Your task to perform on an android device: Open Chrome and go to settings Image 0: 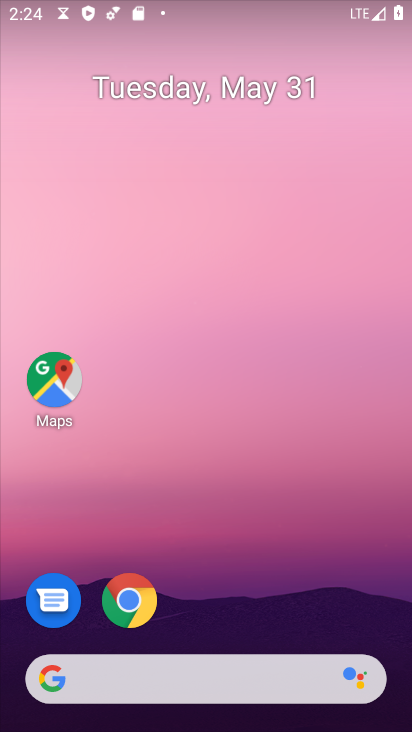
Step 0: drag from (225, 633) to (231, 74)
Your task to perform on an android device: Open Chrome and go to settings Image 1: 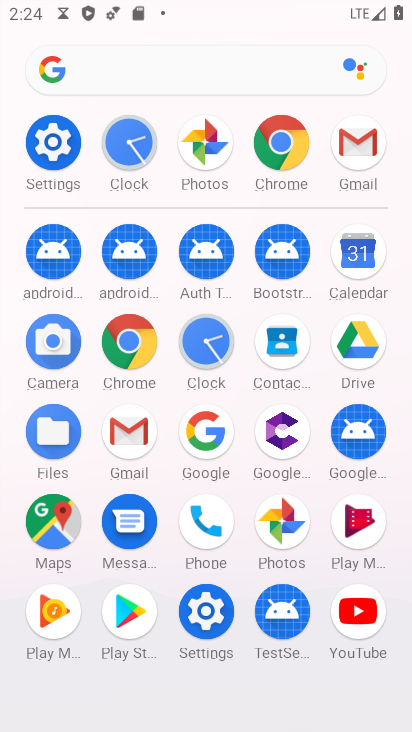
Step 1: click (206, 603)
Your task to perform on an android device: Open Chrome and go to settings Image 2: 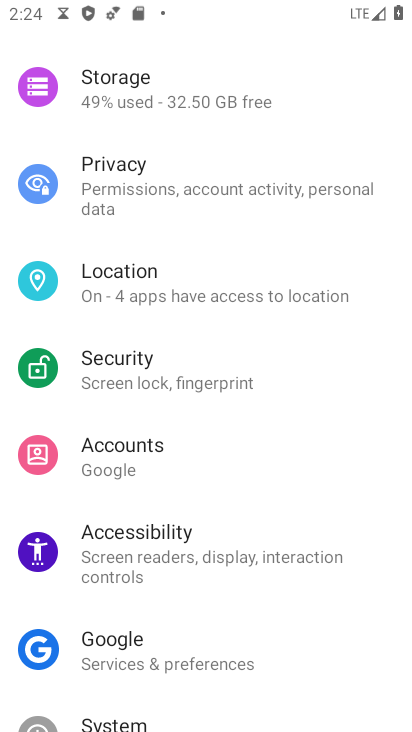
Step 2: press home button
Your task to perform on an android device: Open Chrome and go to settings Image 3: 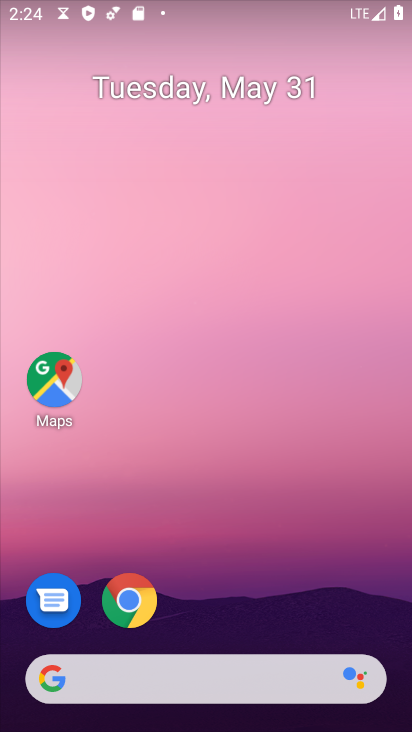
Step 3: click (131, 593)
Your task to perform on an android device: Open Chrome and go to settings Image 4: 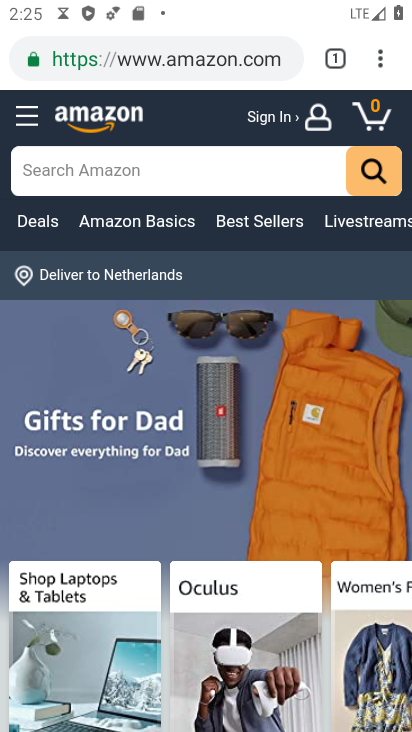
Step 4: click (373, 50)
Your task to perform on an android device: Open Chrome and go to settings Image 5: 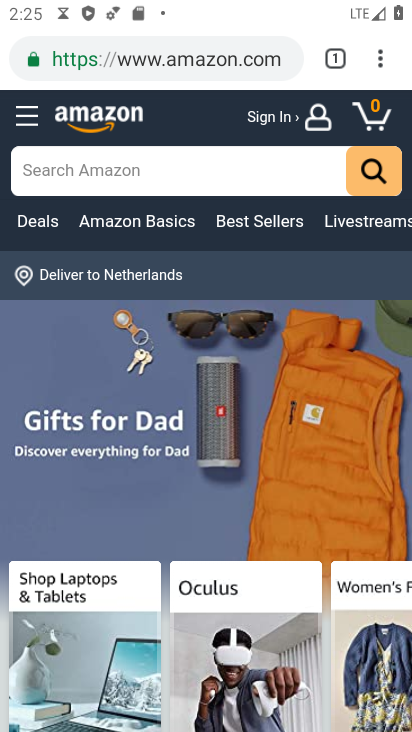
Step 5: click (382, 56)
Your task to perform on an android device: Open Chrome and go to settings Image 6: 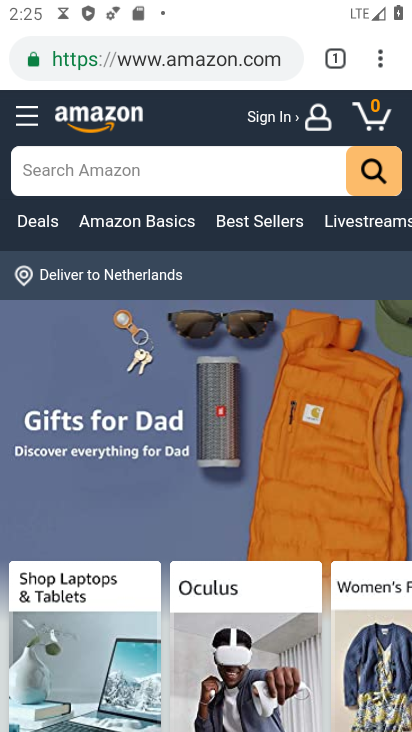
Step 6: click (380, 51)
Your task to perform on an android device: Open Chrome and go to settings Image 7: 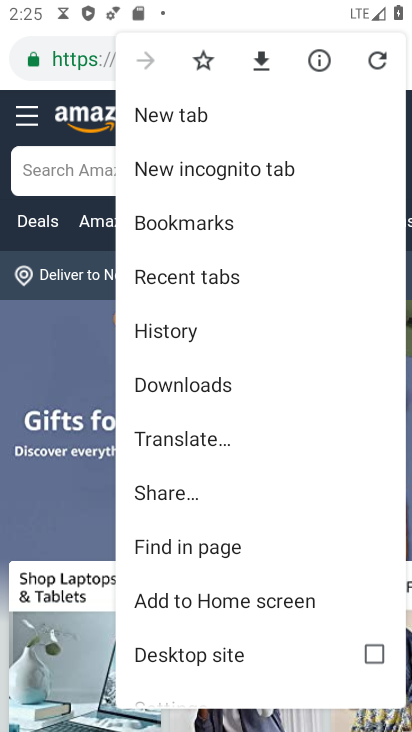
Step 7: drag from (238, 612) to (242, 74)
Your task to perform on an android device: Open Chrome and go to settings Image 8: 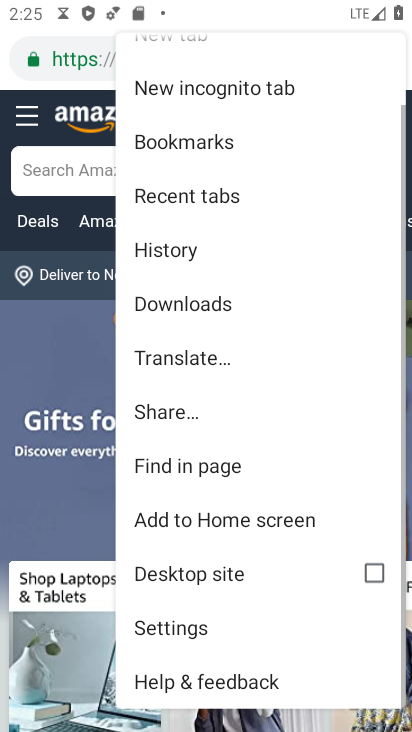
Step 8: click (211, 620)
Your task to perform on an android device: Open Chrome and go to settings Image 9: 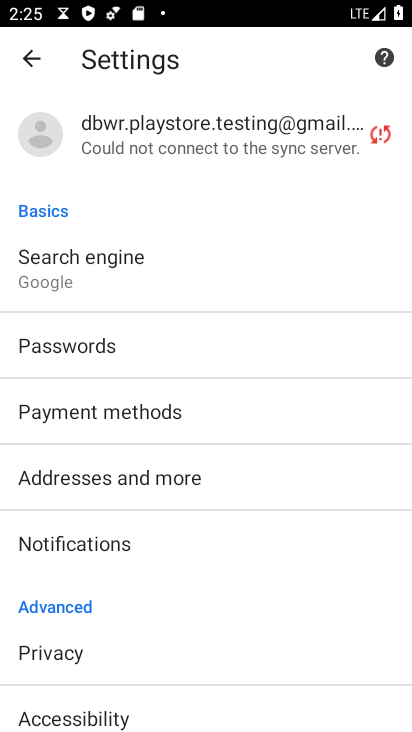
Step 9: task complete